Your task to perform on an android device: open app "Venmo" Image 0: 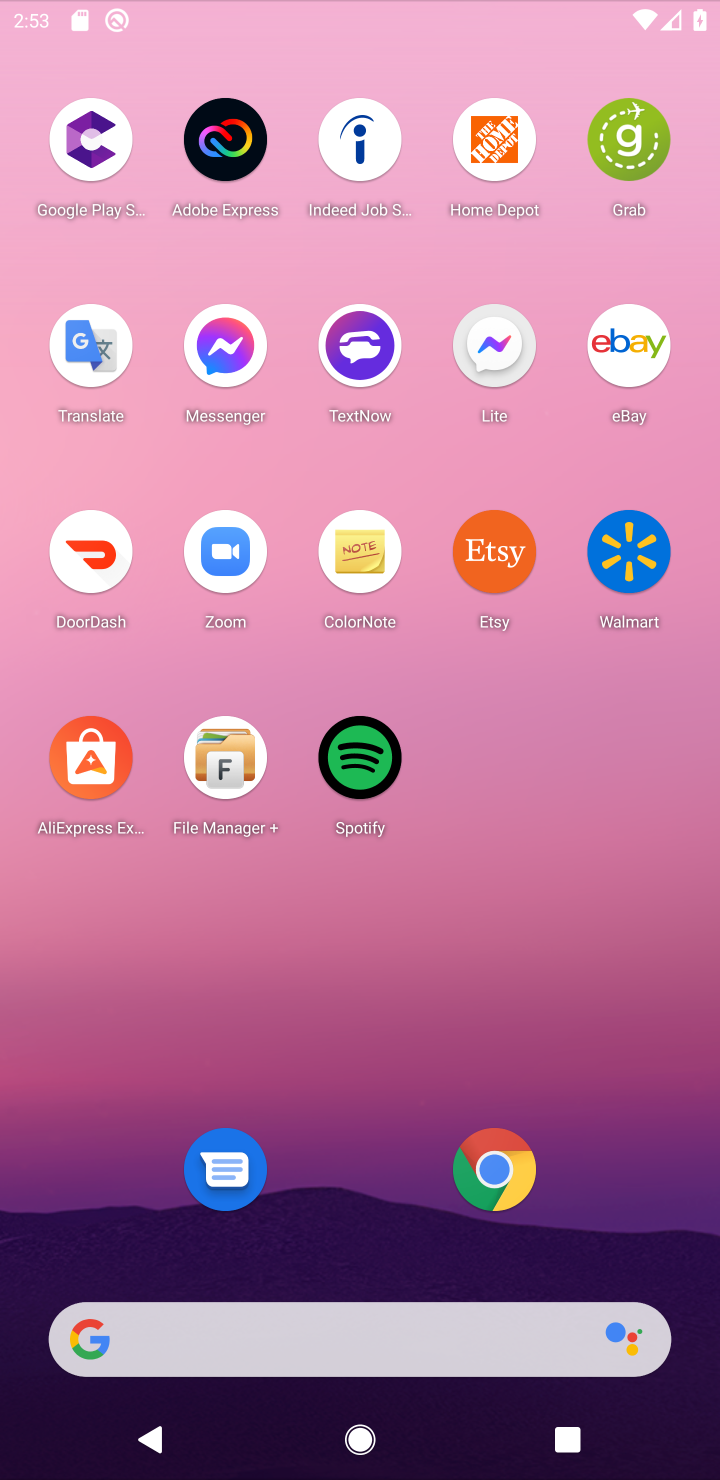
Step 0: press home button
Your task to perform on an android device: open app "Venmo" Image 1: 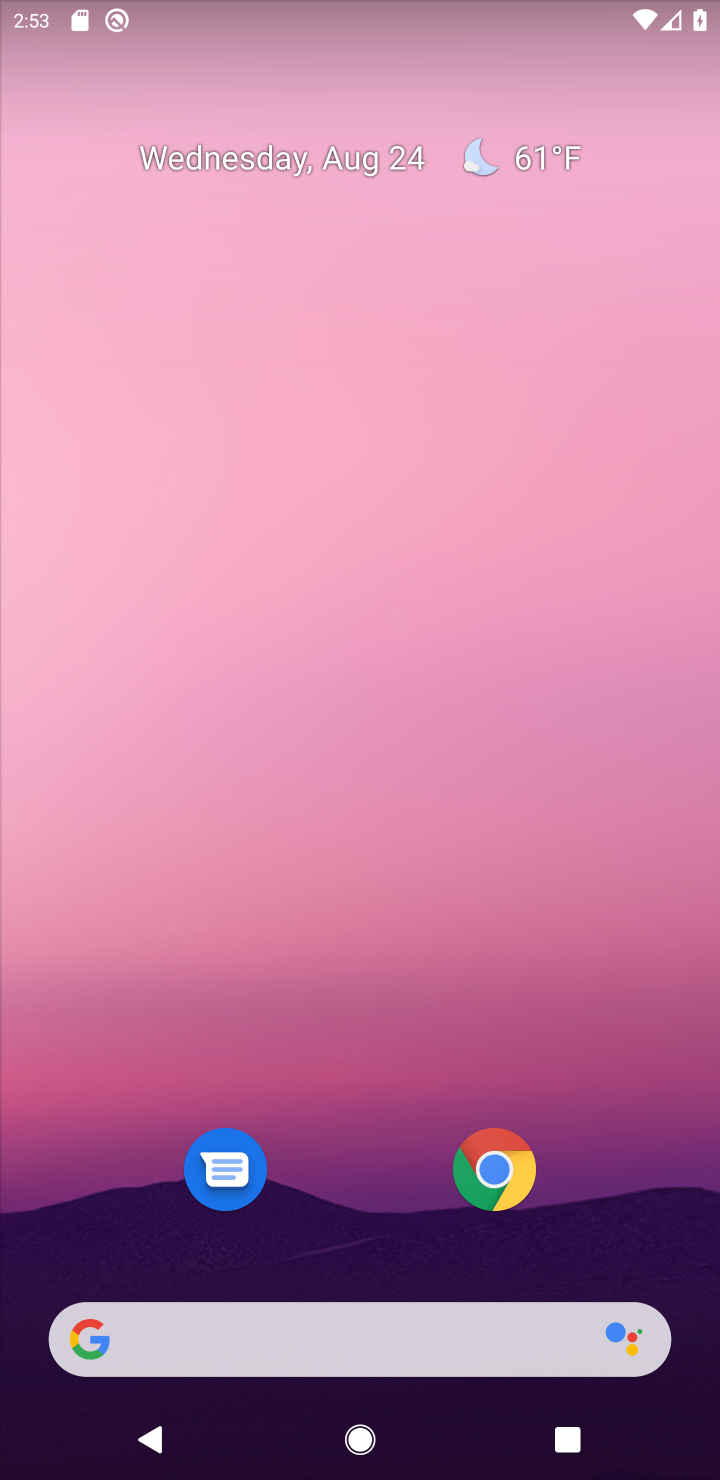
Step 1: drag from (400, 1223) to (278, 279)
Your task to perform on an android device: open app "Venmo" Image 2: 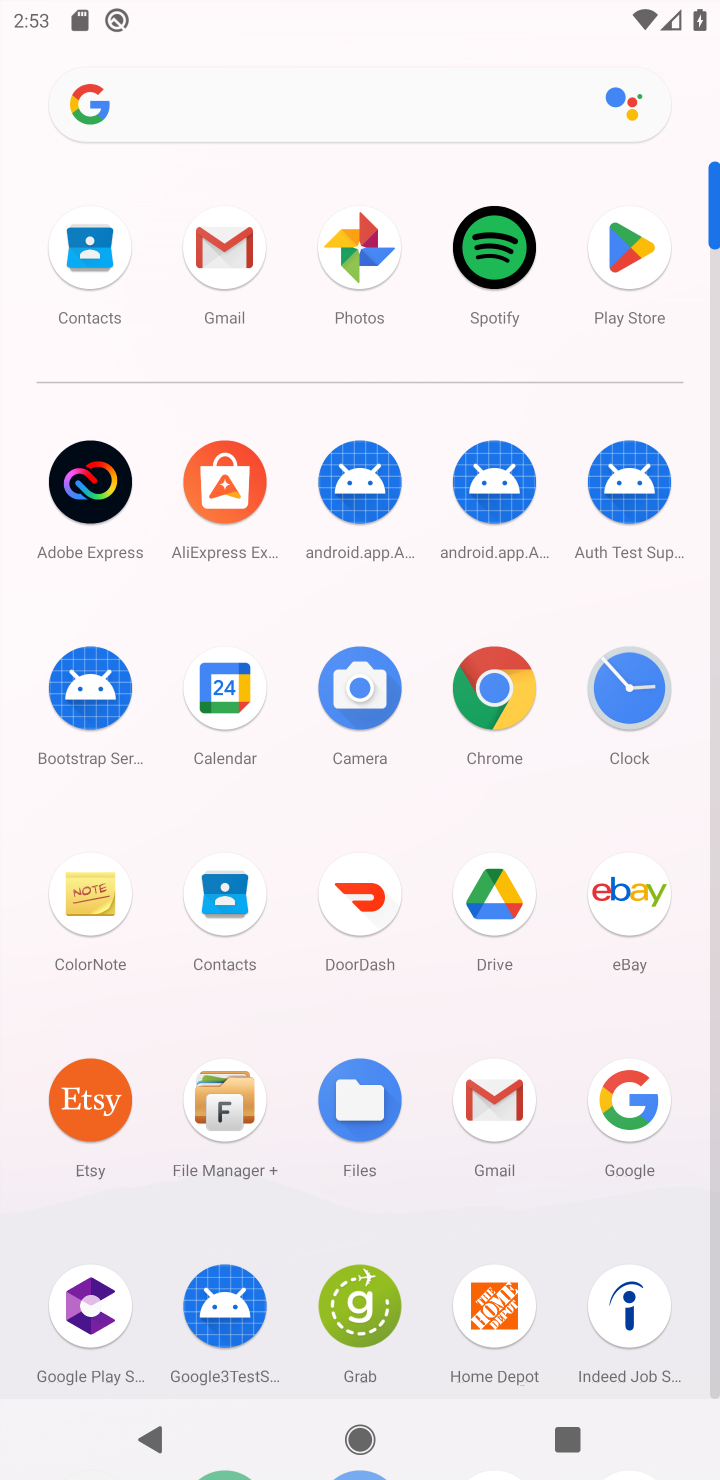
Step 2: click (616, 274)
Your task to perform on an android device: open app "Venmo" Image 3: 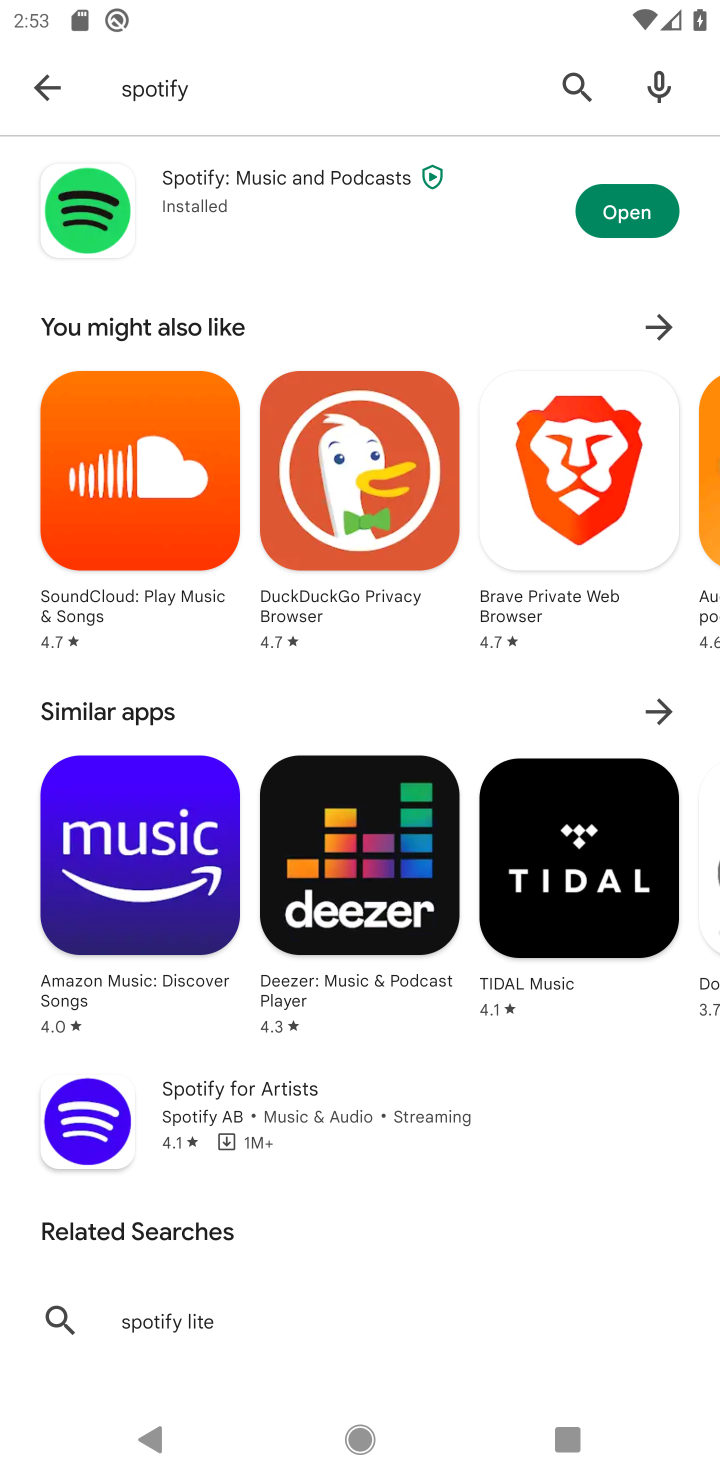
Step 3: click (571, 89)
Your task to perform on an android device: open app "Venmo" Image 4: 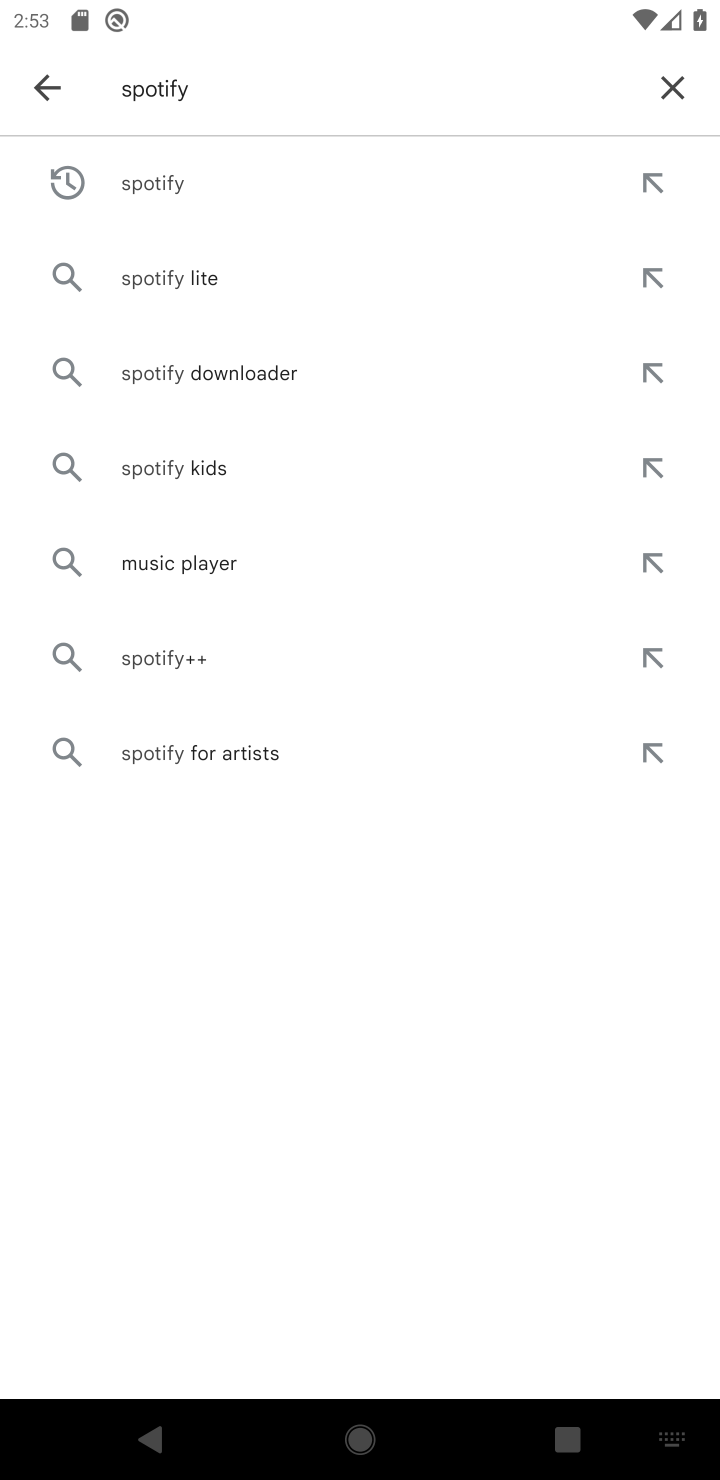
Step 4: click (676, 70)
Your task to perform on an android device: open app "Venmo" Image 5: 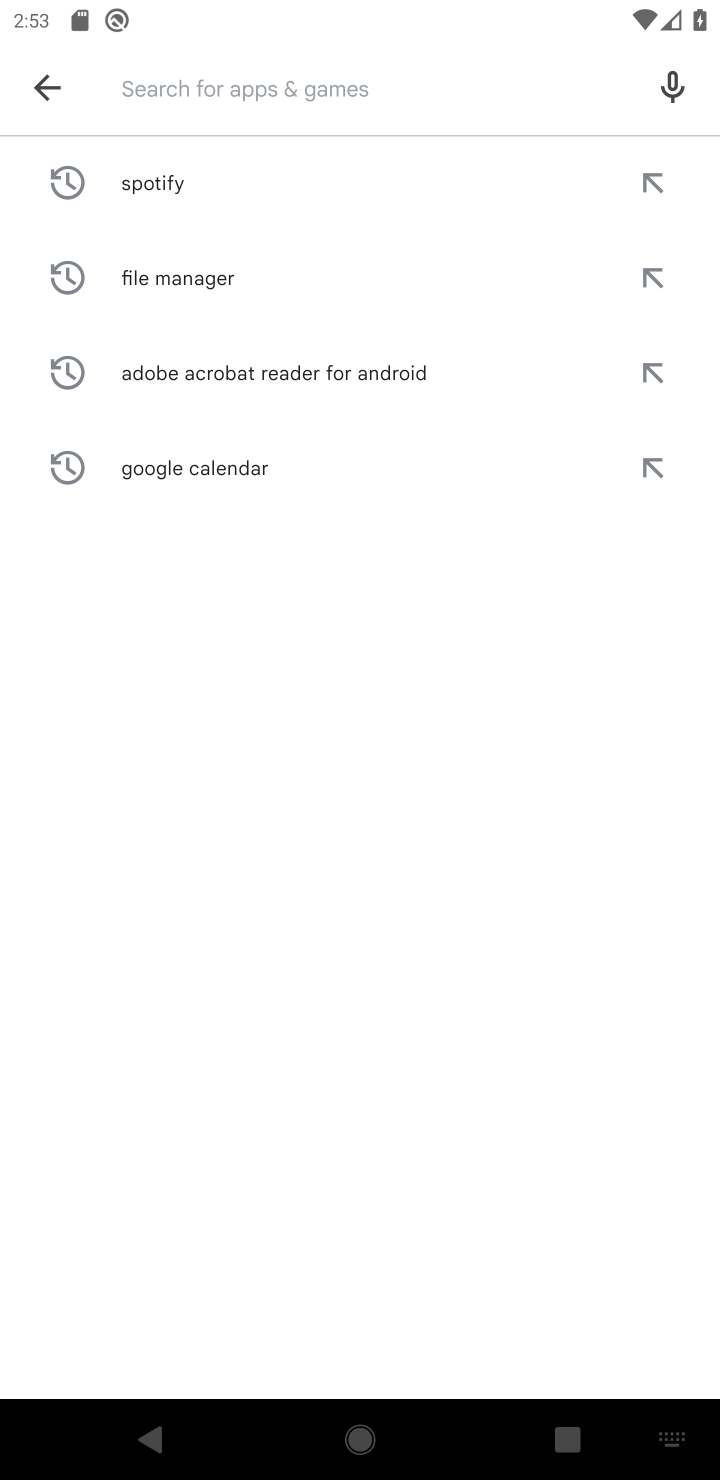
Step 5: type "Venmo"
Your task to perform on an android device: open app "Venmo" Image 6: 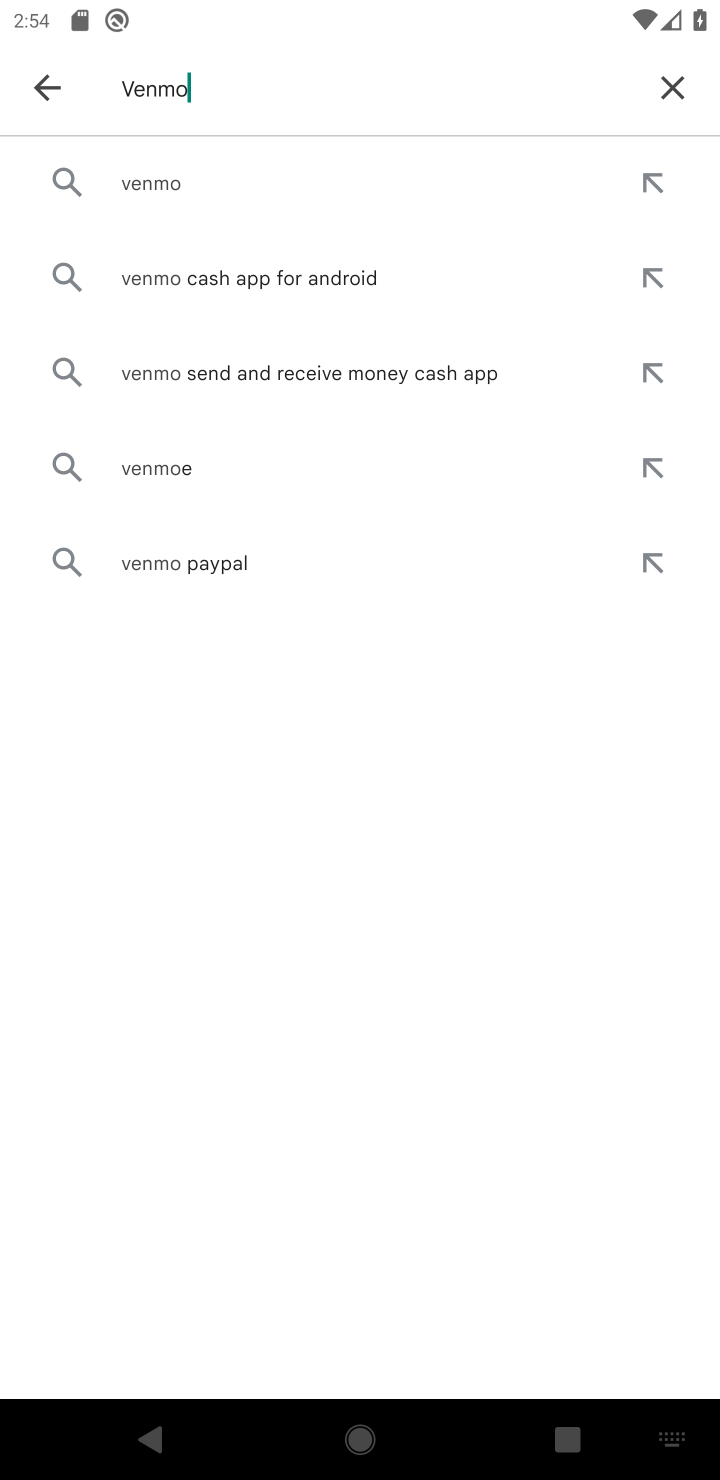
Step 6: click (335, 197)
Your task to perform on an android device: open app "Venmo" Image 7: 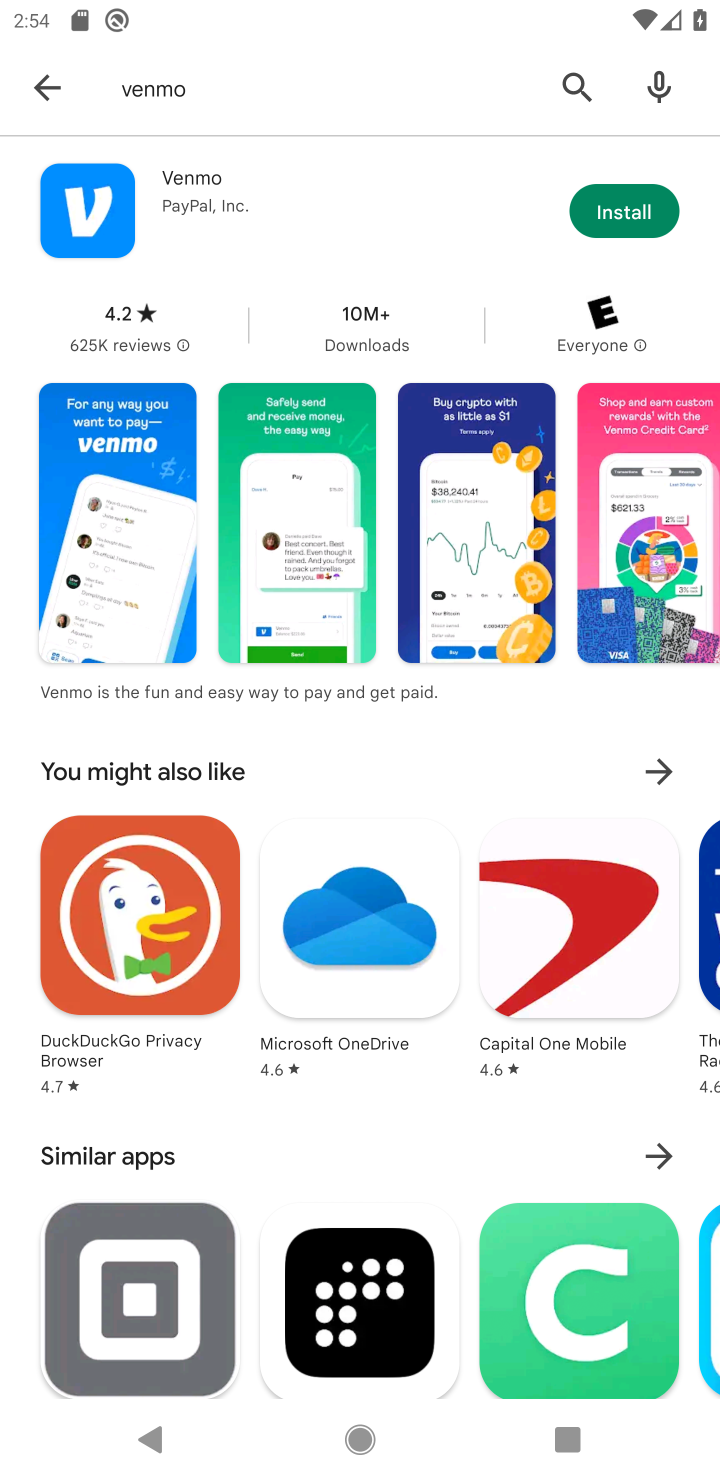
Step 7: task complete